Your task to perform on an android device: Open Chrome and go to settings Image 0: 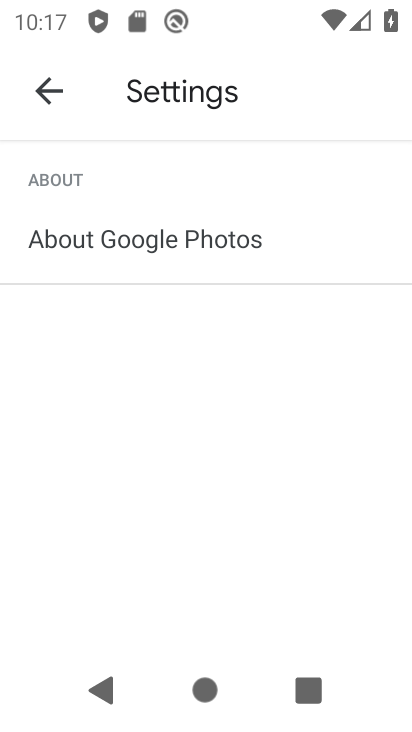
Step 0: press home button
Your task to perform on an android device: Open Chrome and go to settings Image 1: 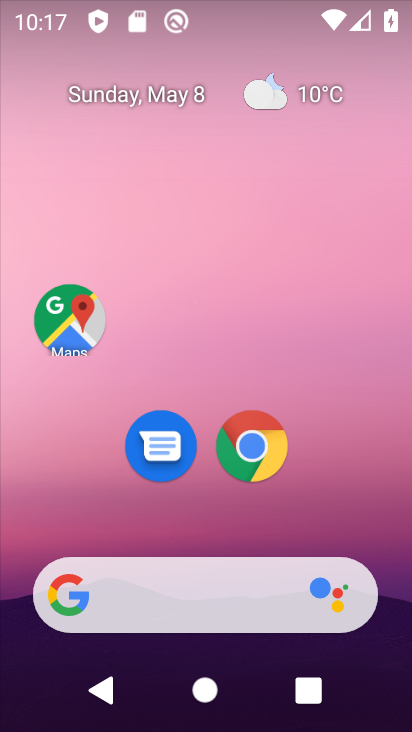
Step 1: click (250, 457)
Your task to perform on an android device: Open Chrome and go to settings Image 2: 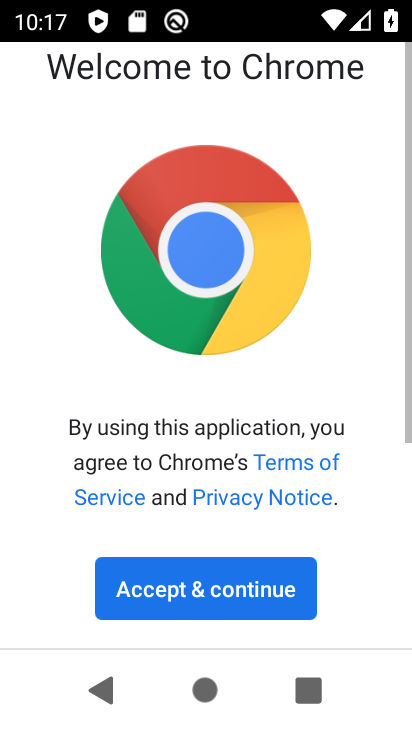
Step 2: click (221, 586)
Your task to perform on an android device: Open Chrome and go to settings Image 3: 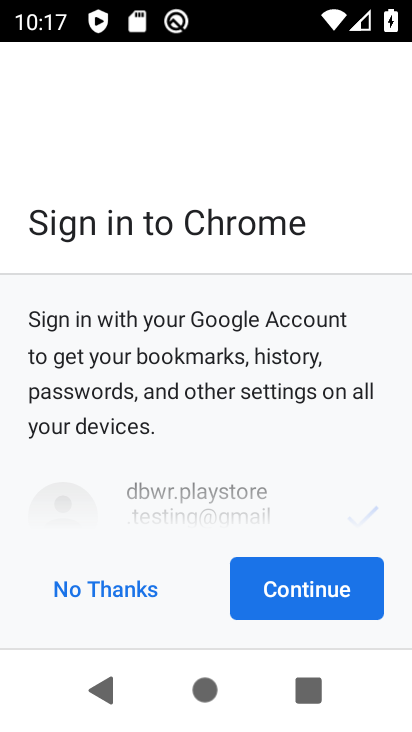
Step 3: click (90, 591)
Your task to perform on an android device: Open Chrome and go to settings Image 4: 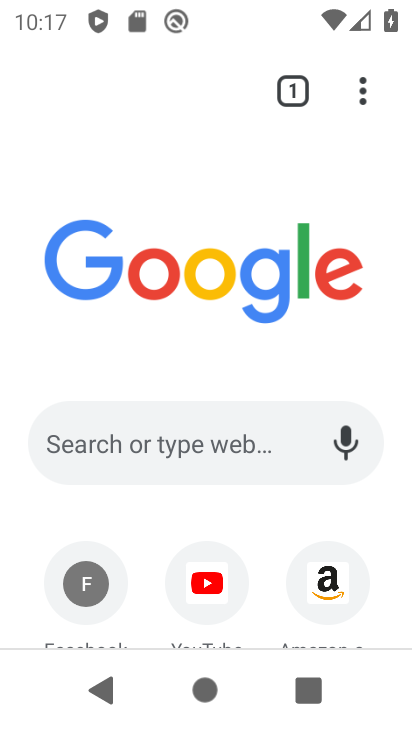
Step 4: task complete